Your task to perform on an android device: change the clock style Image 0: 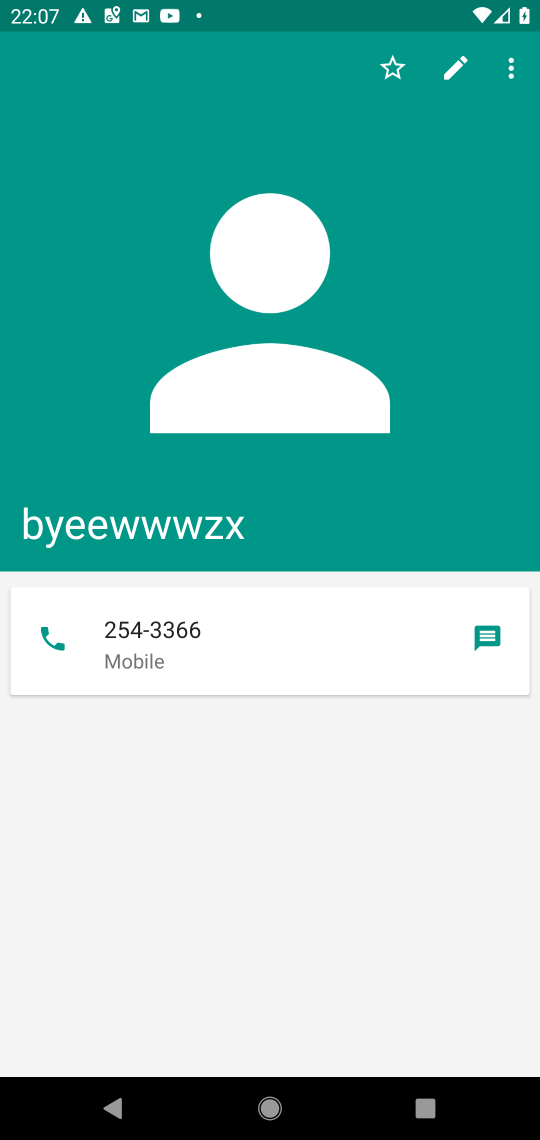
Step 0: press home button
Your task to perform on an android device: change the clock style Image 1: 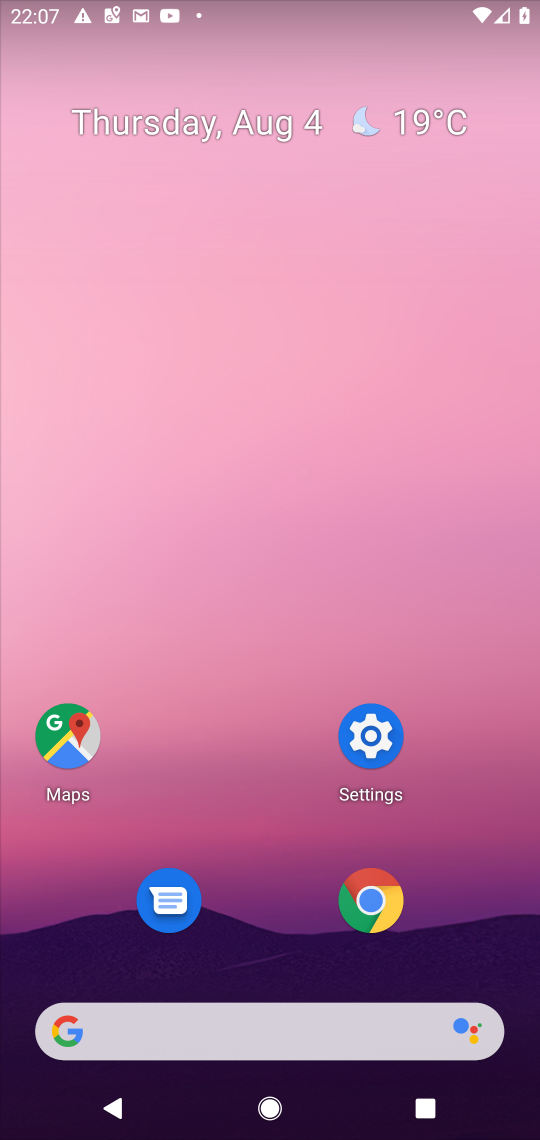
Step 1: drag from (197, 1032) to (284, 224)
Your task to perform on an android device: change the clock style Image 2: 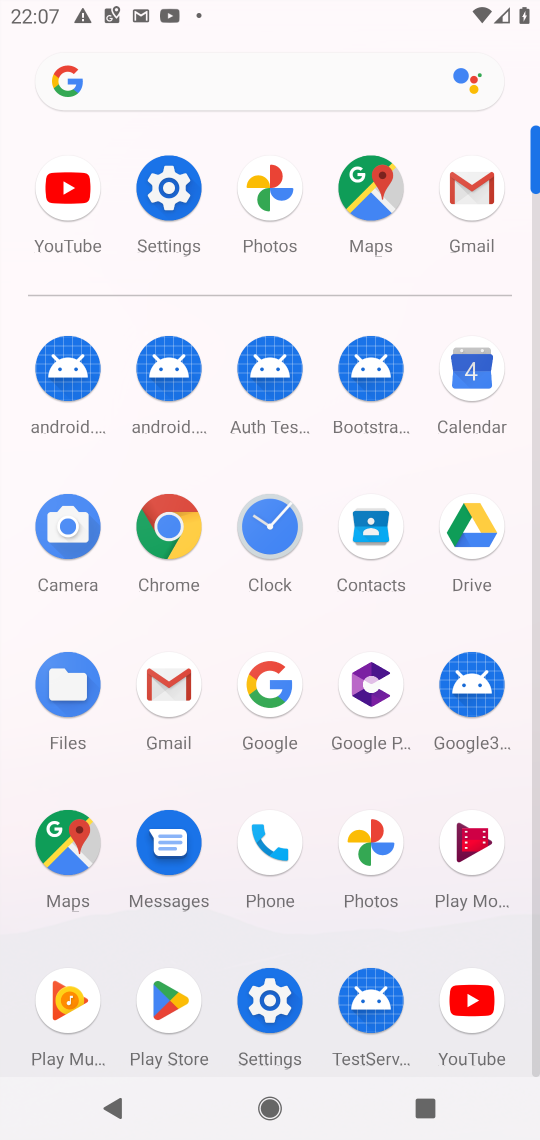
Step 2: click (271, 528)
Your task to perform on an android device: change the clock style Image 3: 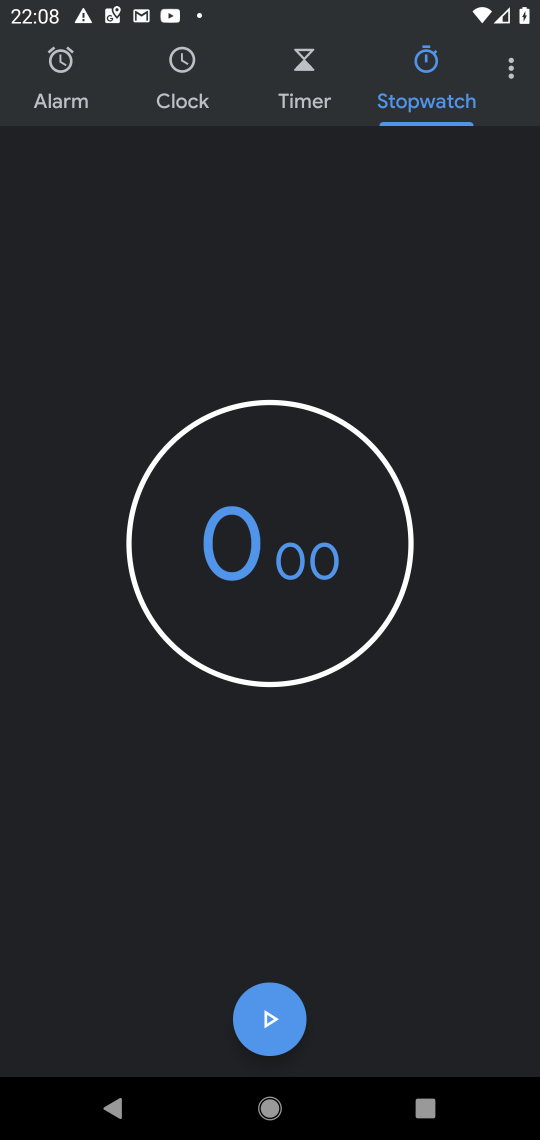
Step 3: click (509, 71)
Your task to perform on an android device: change the clock style Image 4: 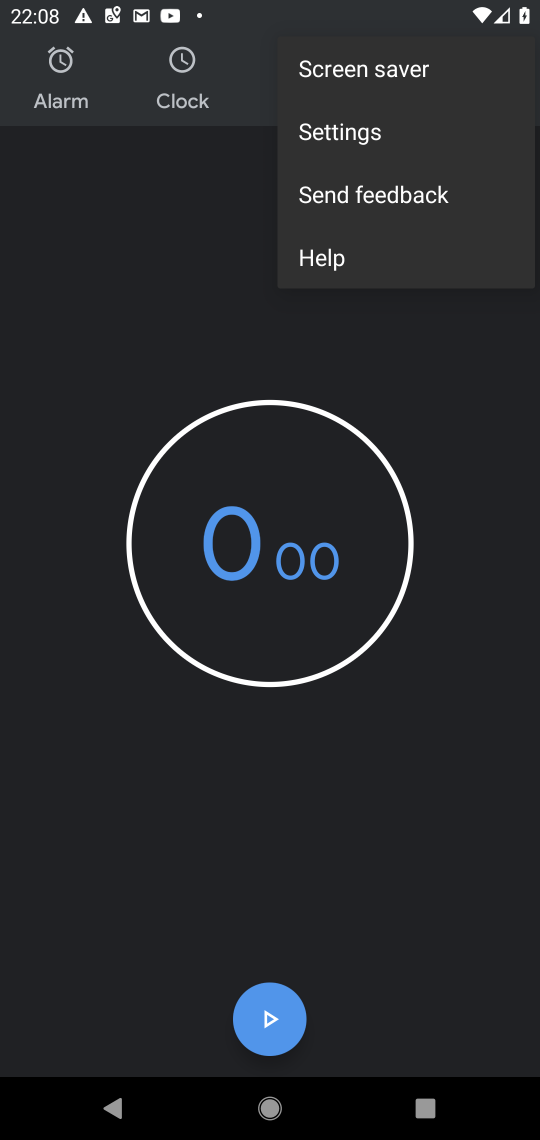
Step 4: click (354, 137)
Your task to perform on an android device: change the clock style Image 5: 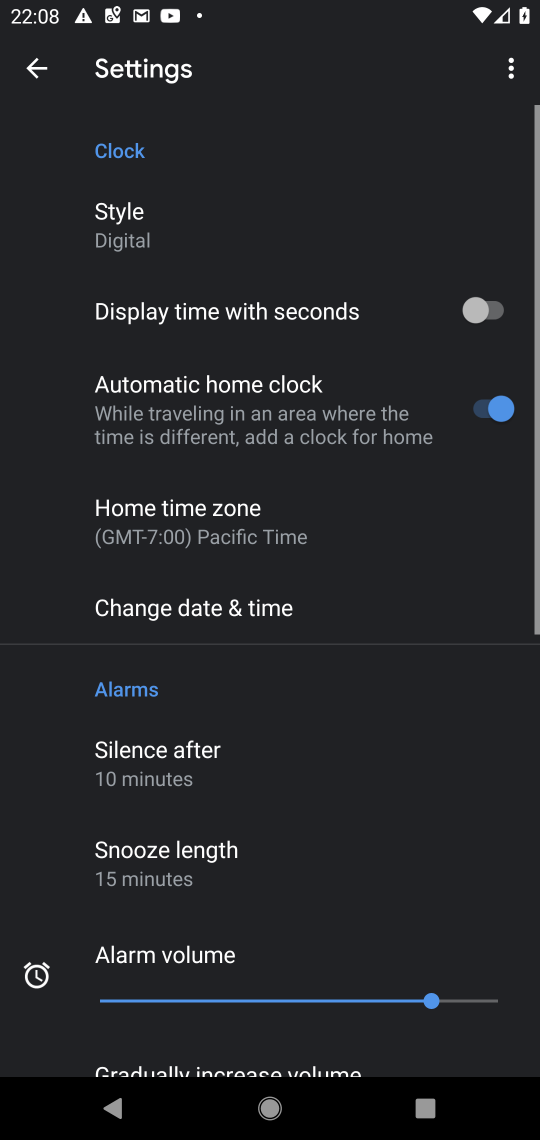
Step 5: click (153, 217)
Your task to perform on an android device: change the clock style Image 6: 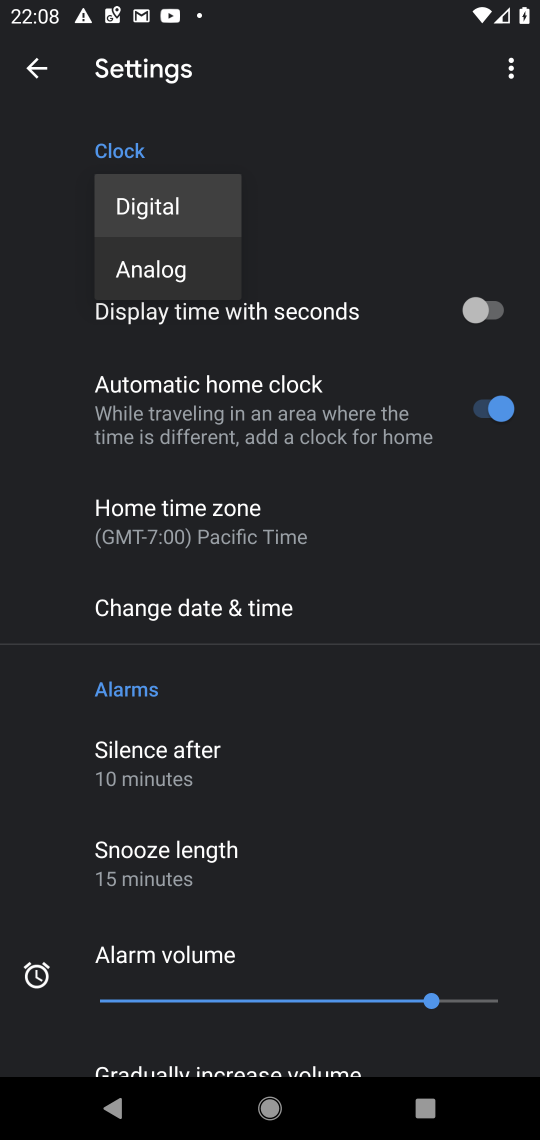
Step 6: click (142, 270)
Your task to perform on an android device: change the clock style Image 7: 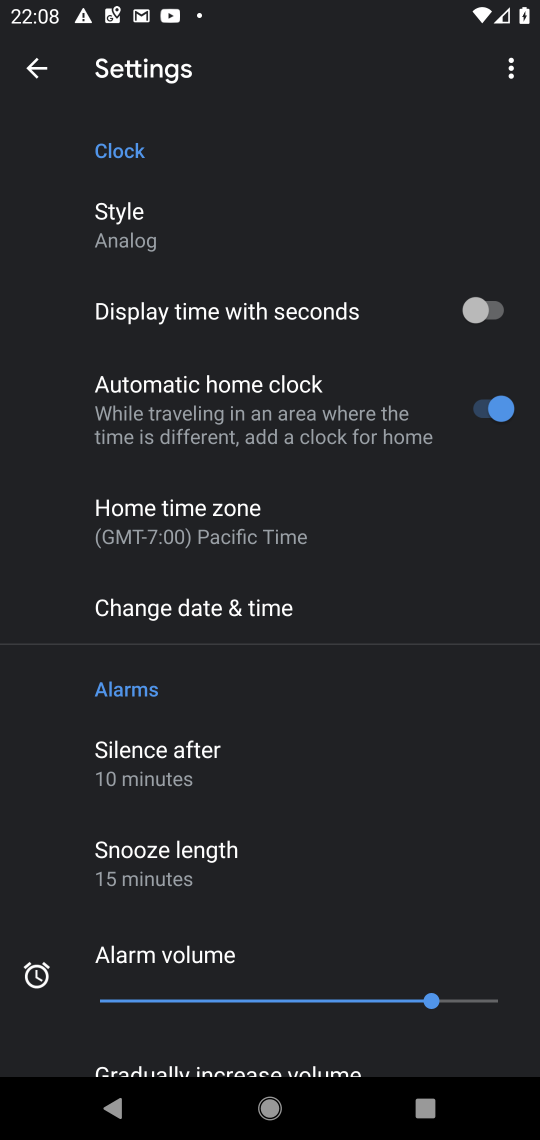
Step 7: task complete